Your task to perform on an android device: Open Amazon Image 0: 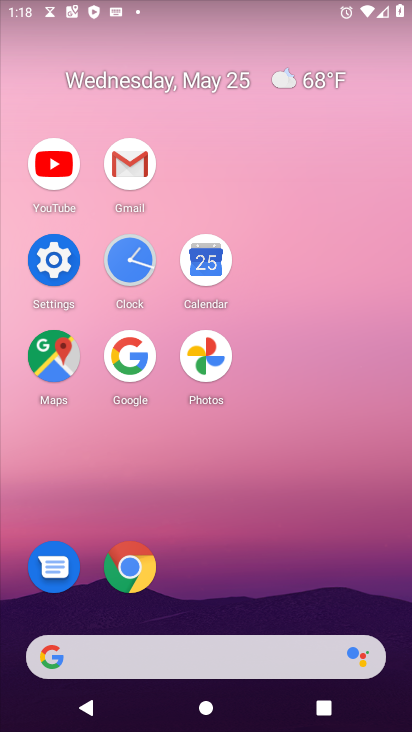
Step 0: click (139, 588)
Your task to perform on an android device: Open Amazon Image 1: 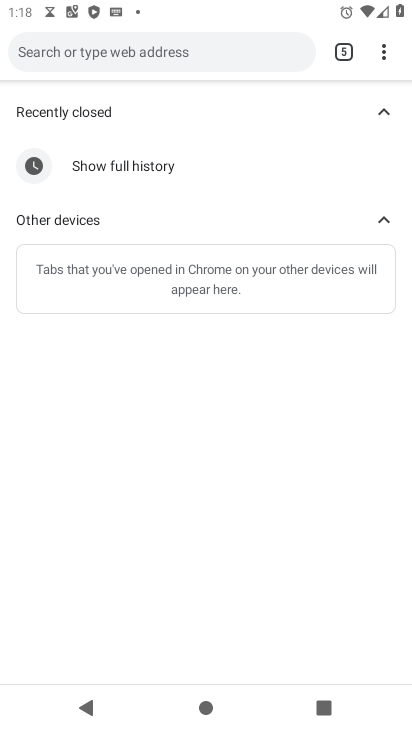
Step 1: click (343, 55)
Your task to perform on an android device: Open Amazon Image 2: 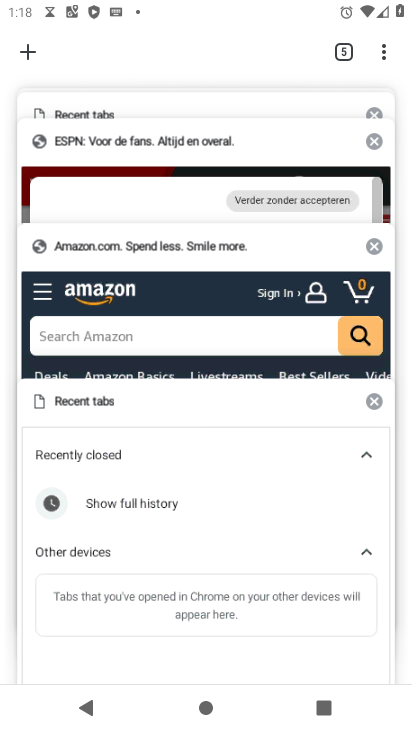
Step 2: click (142, 281)
Your task to perform on an android device: Open Amazon Image 3: 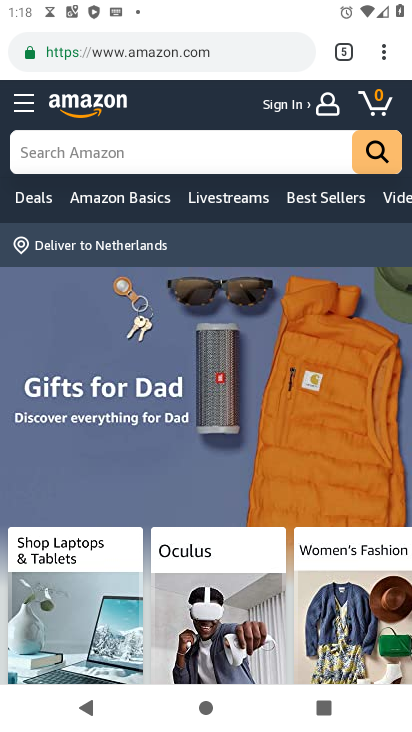
Step 3: task complete